Your task to perform on an android device: Find coffee shops on Maps Image 0: 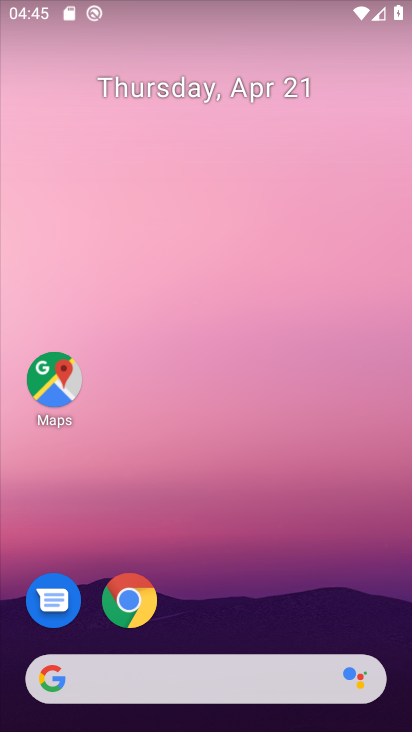
Step 0: click (52, 381)
Your task to perform on an android device: Find coffee shops on Maps Image 1: 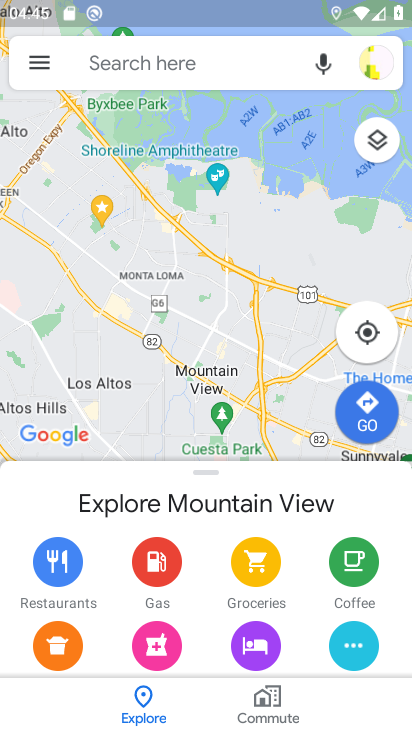
Step 1: click (104, 66)
Your task to perform on an android device: Find coffee shops on Maps Image 2: 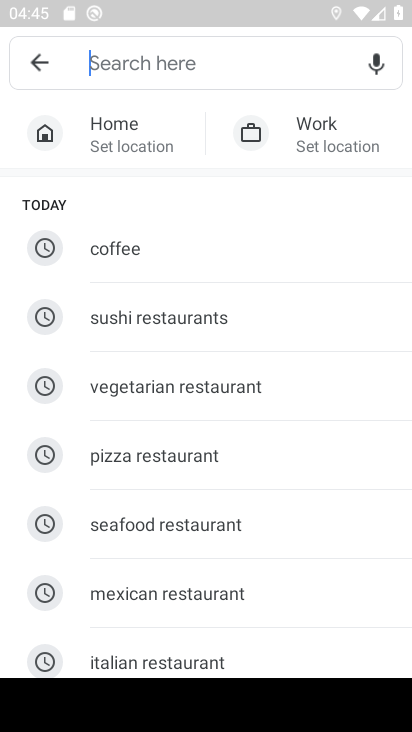
Step 2: type "coffee shop"
Your task to perform on an android device: Find coffee shops on Maps Image 3: 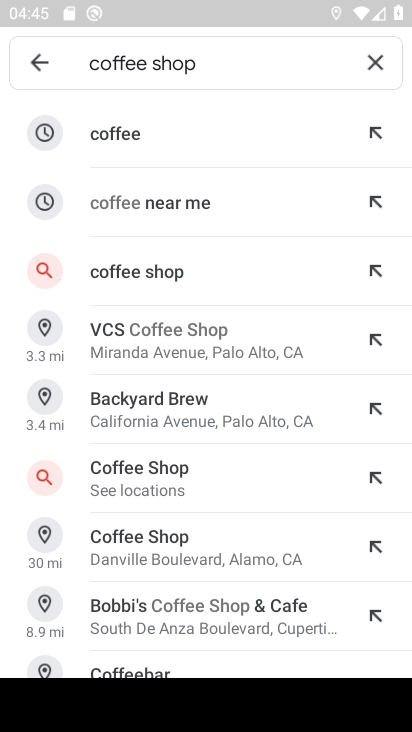
Step 3: click (140, 270)
Your task to perform on an android device: Find coffee shops on Maps Image 4: 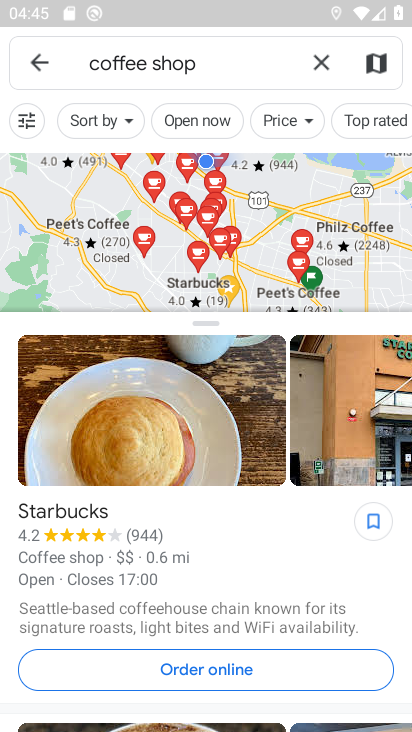
Step 4: task complete